Your task to perform on an android device: Open Google Maps Image 0: 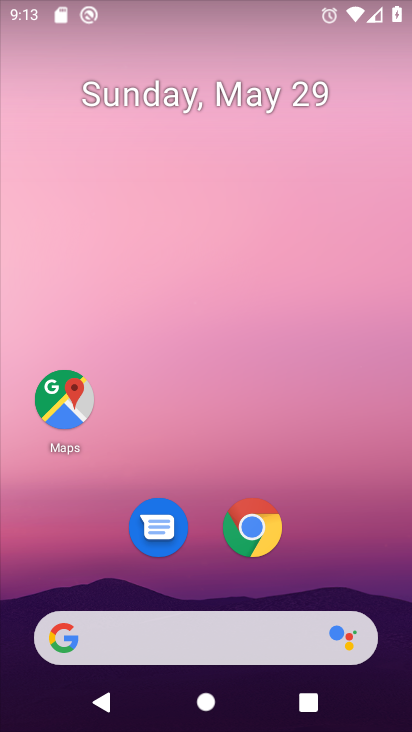
Step 0: press home button
Your task to perform on an android device: Open Google Maps Image 1: 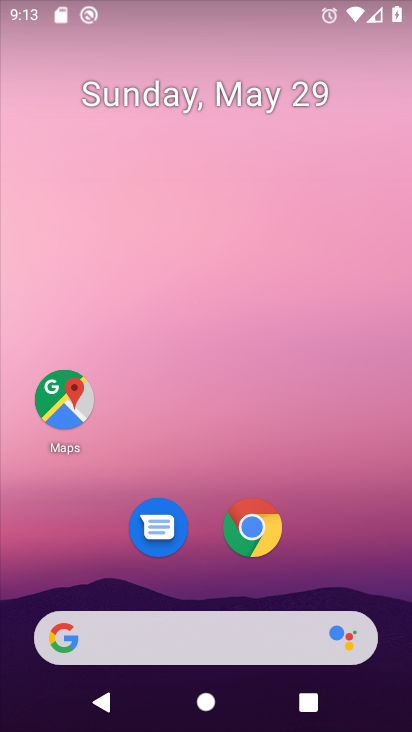
Step 1: click (61, 399)
Your task to perform on an android device: Open Google Maps Image 2: 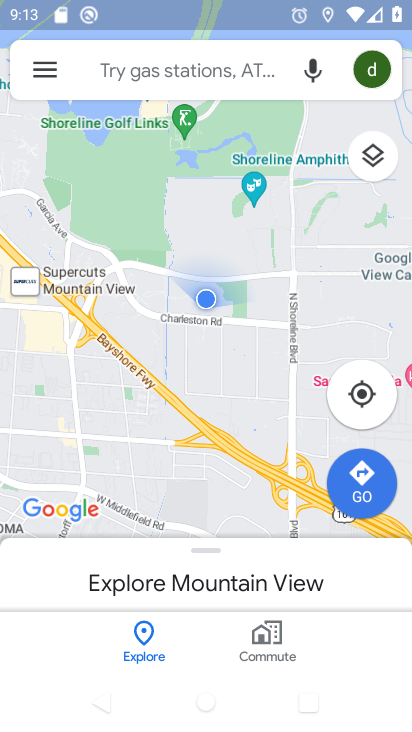
Step 2: task complete